Your task to perform on an android device: make emails show in primary in the gmail app Image 0: 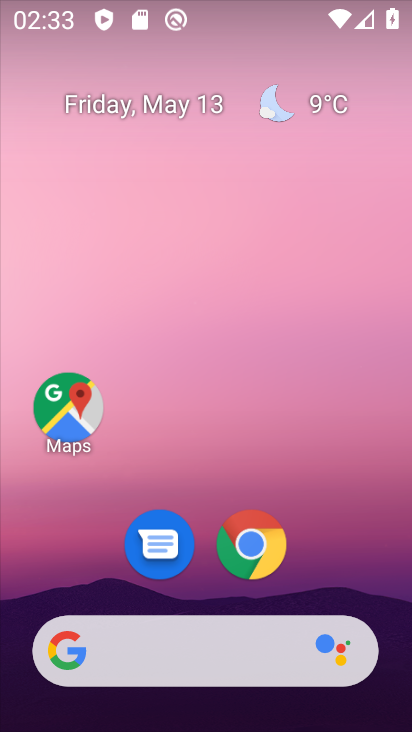
Step 0: drag from (354, 539) to (259, 30)
Your task to perform on an android device: make emails show in primary in the gmail app Image 1: 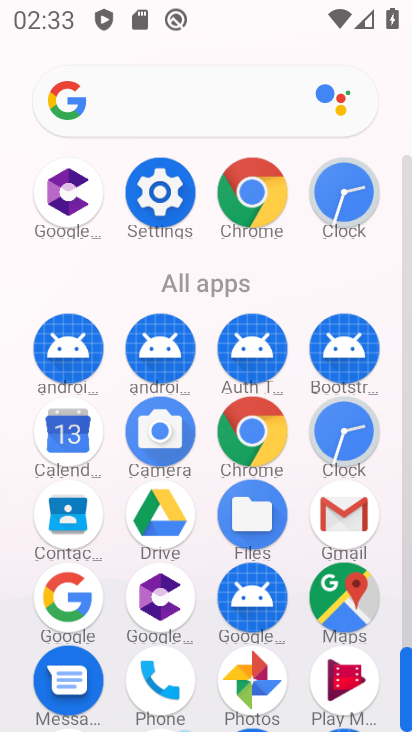
Step 1: click (342, 509)
Your task to perform on an android device: make emails show in primary in the gmail app Image 2: 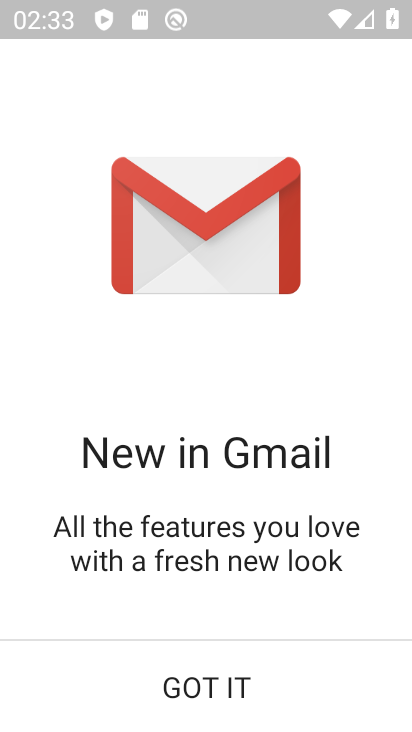
Step 2: click (245, 673)
Your task to perform on an android device: make emails show in primary in the gmail app Image 3: 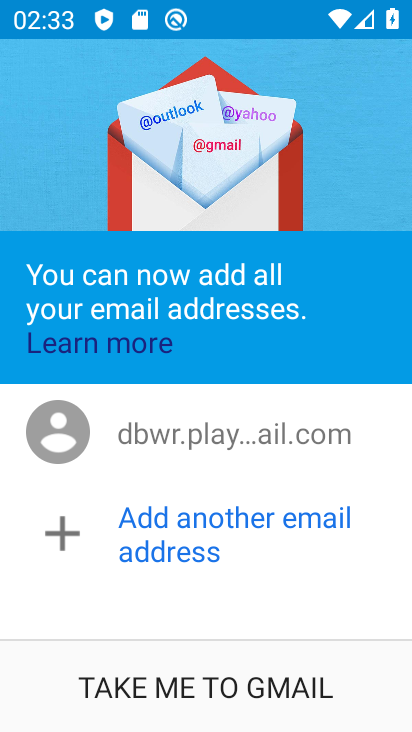
Step 3: click (241, 675)
Your task to perform on an android device: make emails show in primary in the gmail app Image 4: 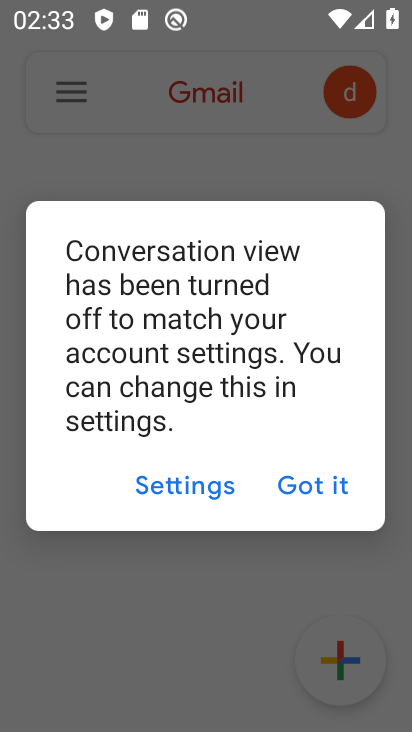
Step 4: click (298, 483)
Your task to perform on an android device: make emails show in primary in the gmail app Image 5: 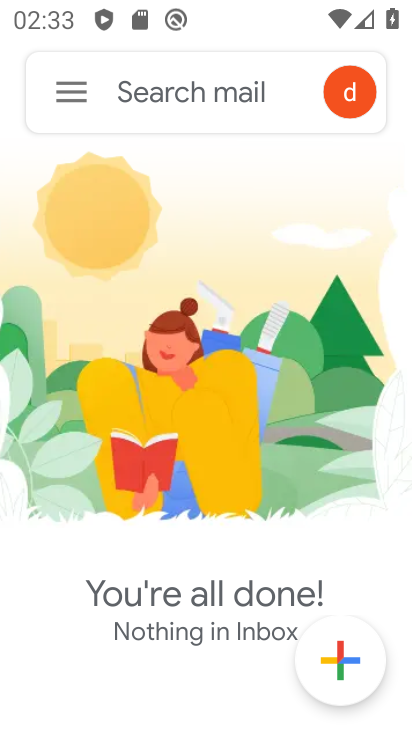
Step 5: click (60, 82)
Your task to perform on an android device: make emails show in primary in the gmail app Image 6: 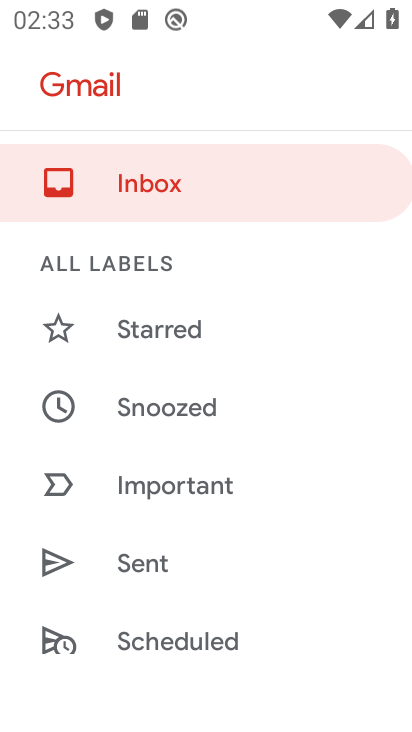
Step 6: drag from (226, 608) to (263, 141)
Your task to perform on an android device: make emails show in primary in the gmail app Image 7: 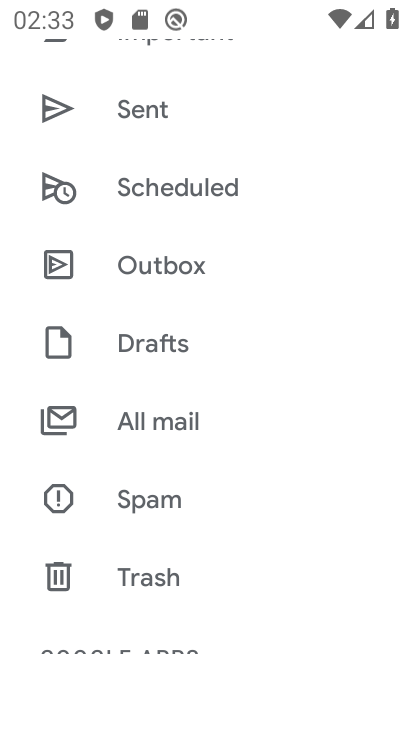
Step 7: drag from (263, 588) to (271, 148)
Your task to perform on an android device: make emails show in primary in the gmail app Image 8: 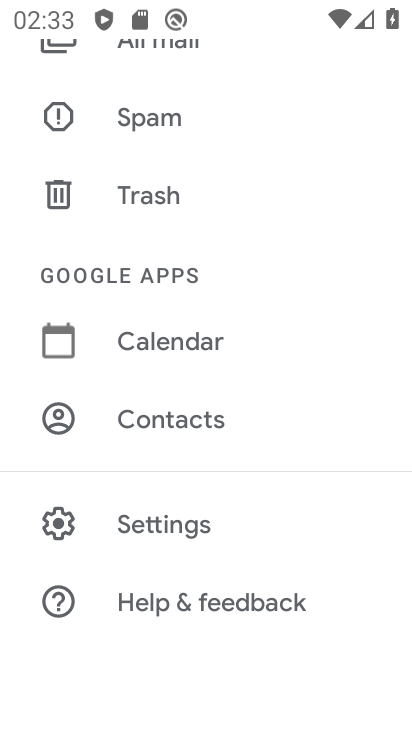
Step 8: click (166, 511)
Your task to perform on an android device: make emails show in primary in the gmail app Image 9: 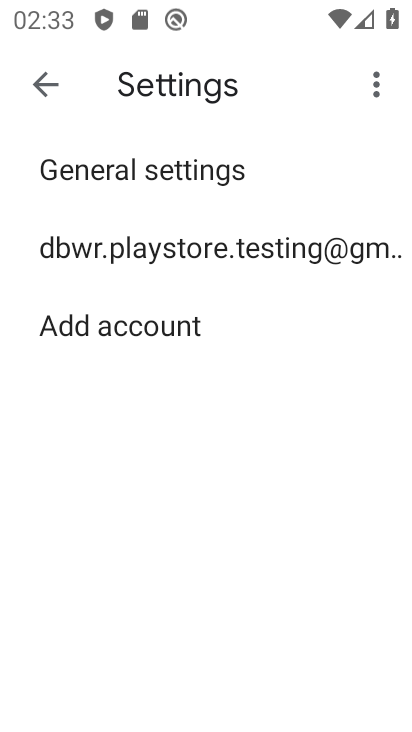
Step 9: click (222, 239)
Your task to perform on an android device: make emails show in primary in the gmail app Image 10: 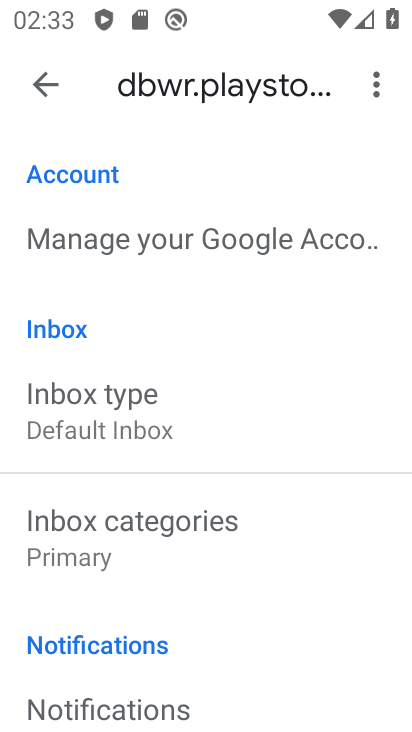
Step 10: click (145, 417)
Your task to perform on an android device: make emails show in primary in the gmail app Image 11: 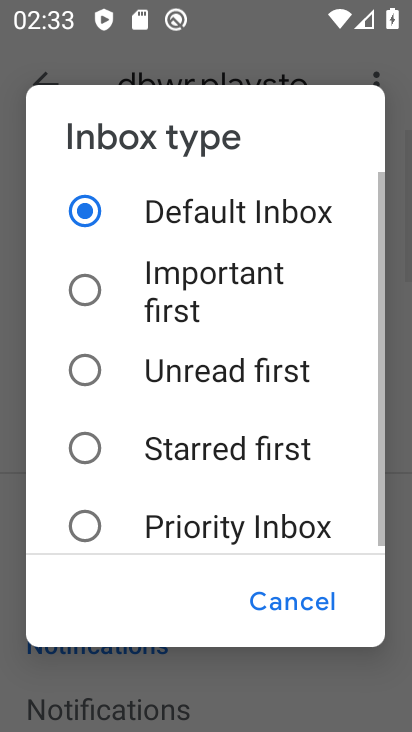
Step 11: click (181, 215)
Your task to perform on an android device: make emails show in primary in the gmail app Image 12: 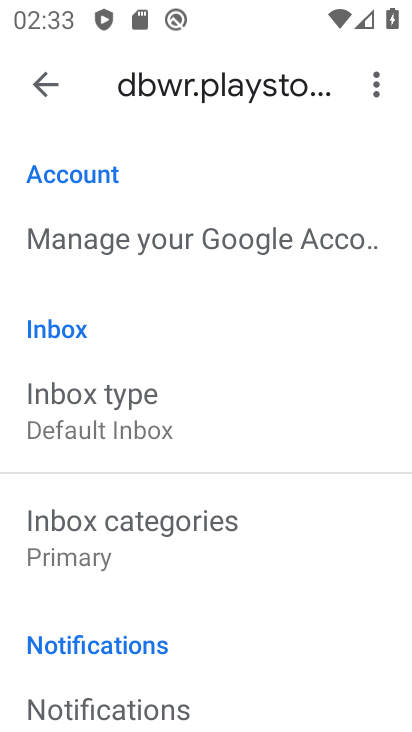
Step 12: task complete